Your task to perform on an android device: toggle show notifications on the lock screen Image 0: 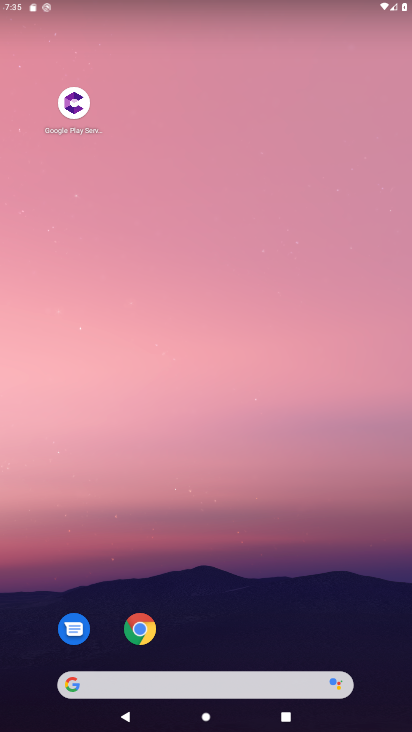
Step 0: drag from (305, 605) to (292, 216)
Your task to perform on an android device: toggle show notifications on the lock screen Image 1: 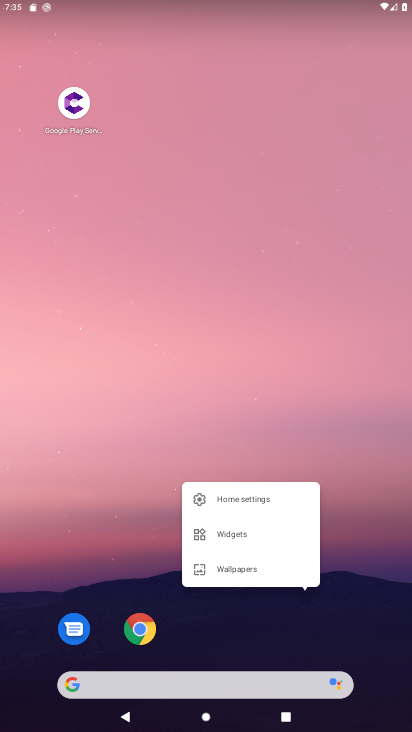
Step 1: click (297, 292)
Your task to perform on an android device: toggle show notifications on the lock screen Image 2: 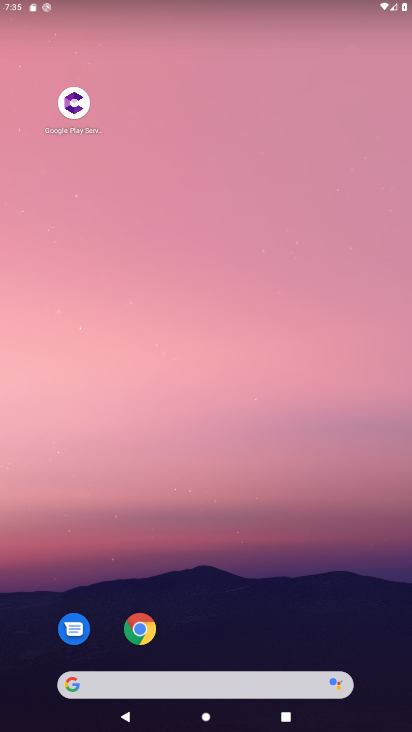
Step 2: drag from (342, 649) to (313, 85)
Your task to perform on an android device: toggle show notifications on the lock screen Image 3: 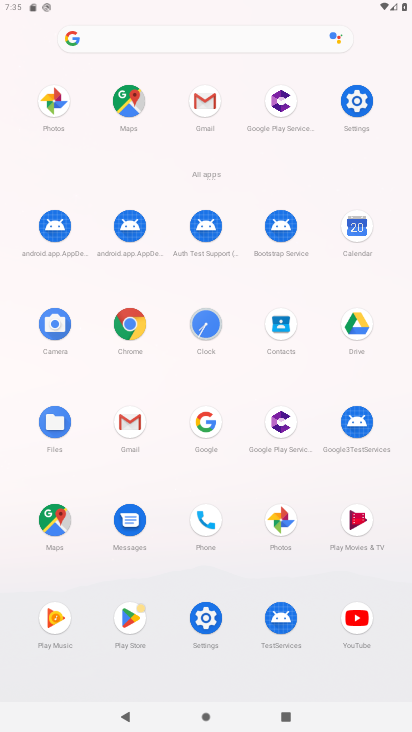
Step 3: click (201, 641)
Your task to perform on an android device: toggle show notifications on the lock screen Image 4: 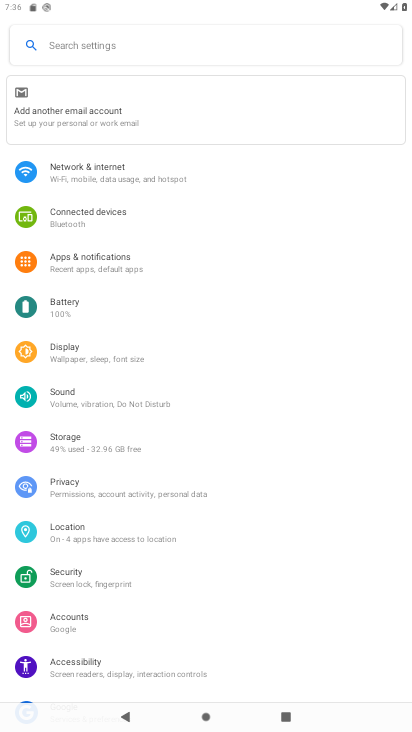
Step 4: click (107, 267)
Your task to perform on an android device: toggle show notifications on the lock screen Image 5: 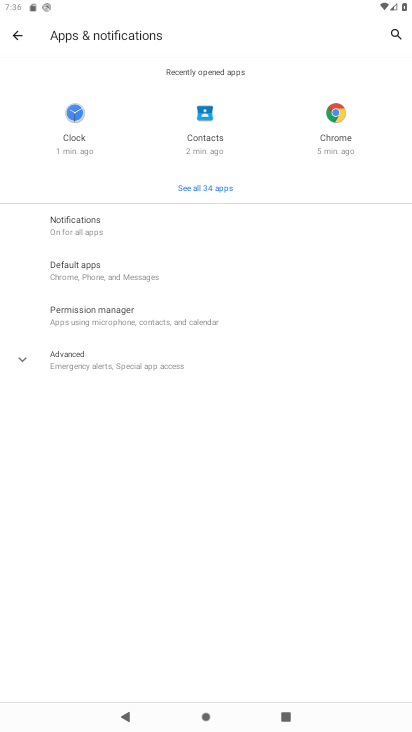
Step 5: click (137, 222)
Your task to perform on an android device: toggle show notifications on the lock screen Image 6: 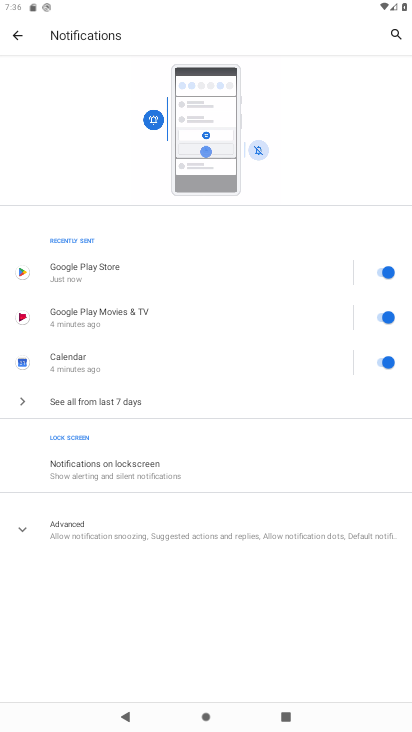
Step 6: click (184, 477)
Your task to perform on an android device: toggle show notifications on the lock screen Image 7: 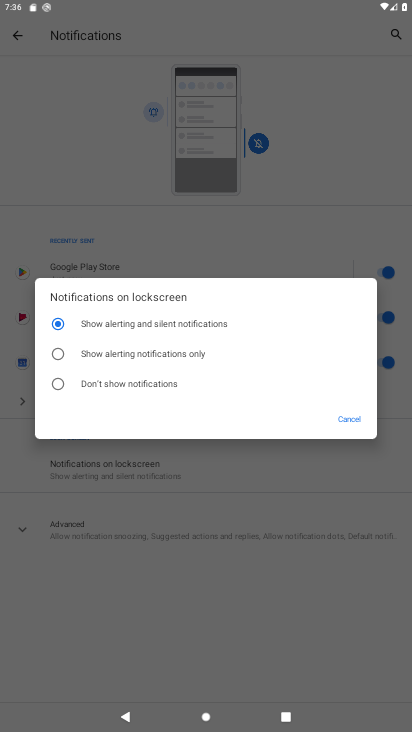
Step 7: click (116, 387)
Your task to perform on an android device: toggle show notifications on the lock screen Image 8: 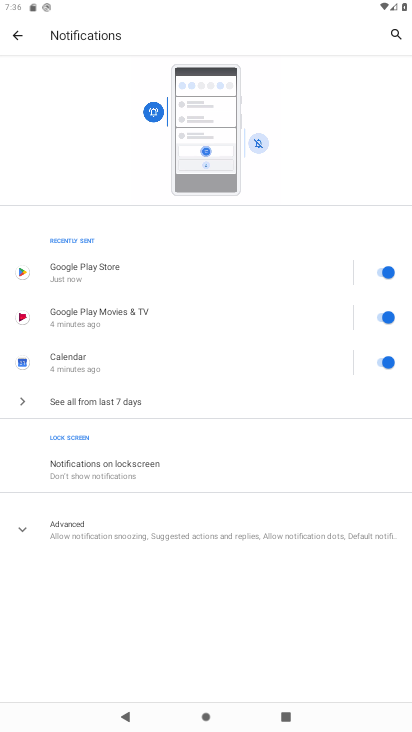
Step 8: task complete